Your task to perform on an android device: Go to settings Image 0: 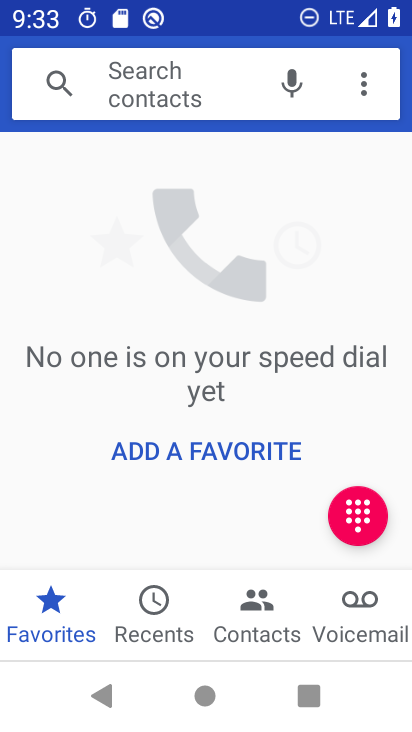
Step 0: press back button
Your task to perform on an android device: Go to settings Image 1: 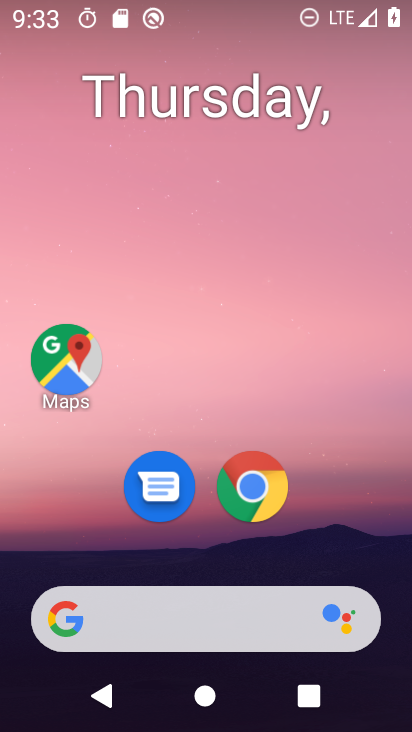
Step 1: drag from (162, 560) to (265, 54)
Your task to perform on an android device: Go to settings Image 2: 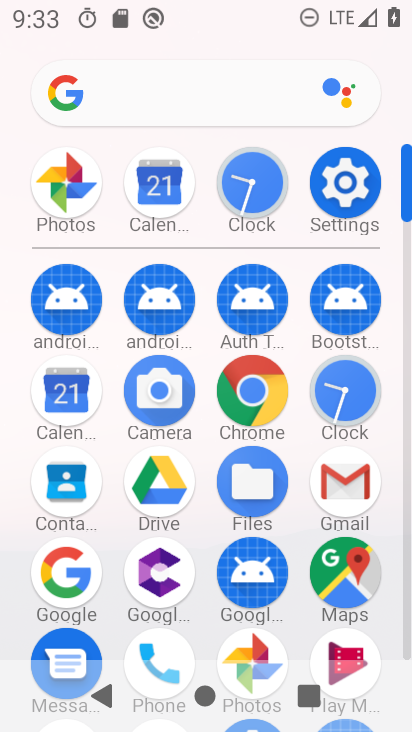
Step 2: click (346, 179)
Your task to perform on an android device: Go to settings Image 3: 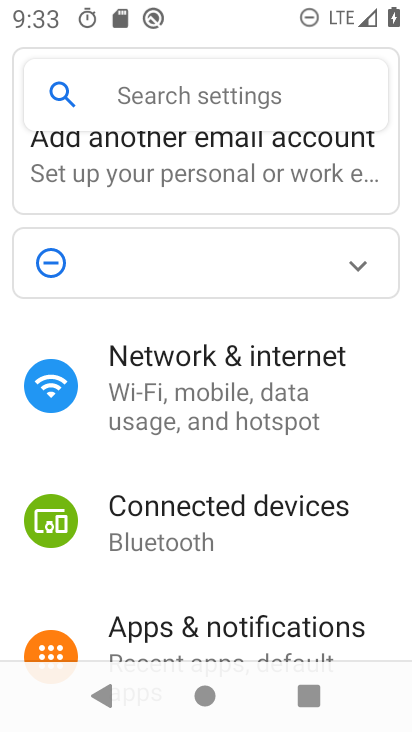
Step 3: task complete